Your task to perform on an android device: Turn on the flashlight Image 0: 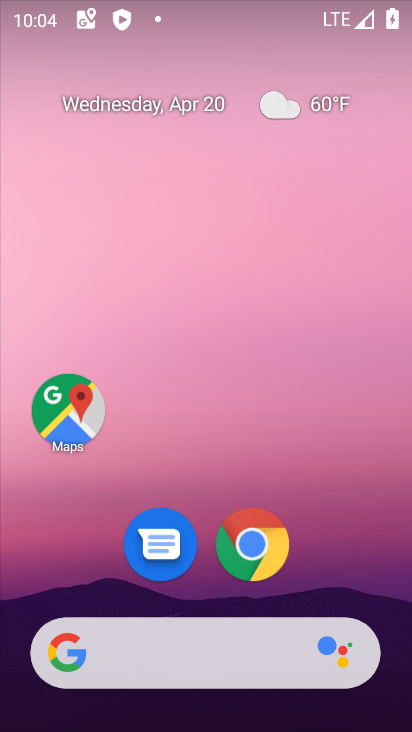
Step 0: drag from (270, 15) to (207, 545)
Your task to perform on an android device: Turn on the flashlight Image 1: 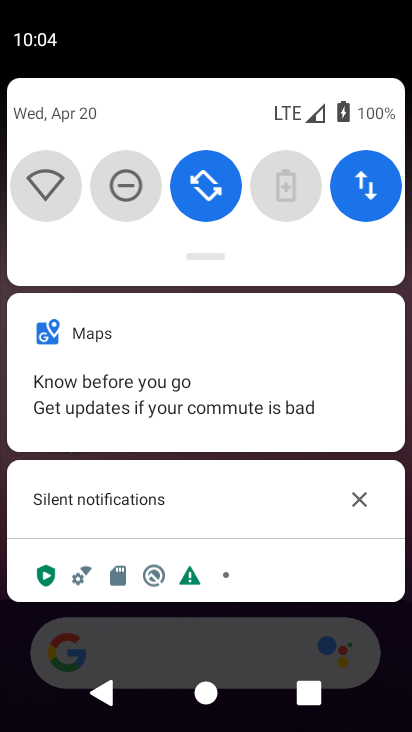
Step 1: drag from (248, 219) to (239, 634)
Your task to perform on an android device: Turn on the flashlight Image 2: 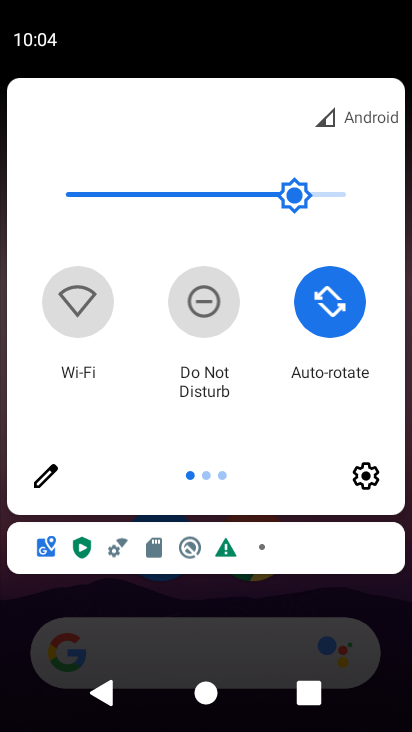
Step 2: drag from (377, 401) to (24, 407)
Your task to perform on an android device: Turn on the flashlight Image 3: 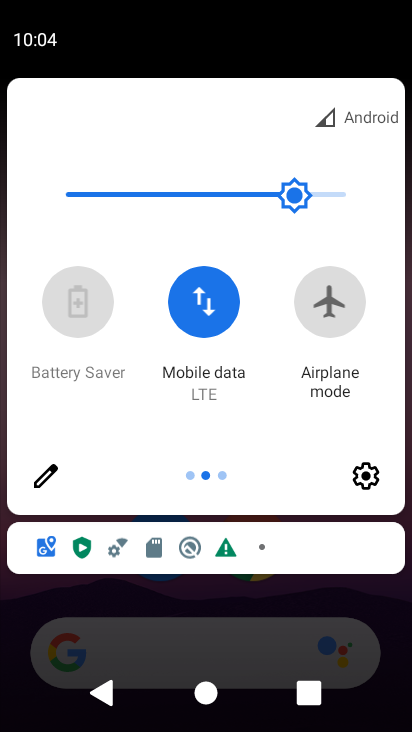
Step 3: drag from (388, 353) to (21, 283)
Your task to perform on an android device: Turn on the flashlight Image 4: 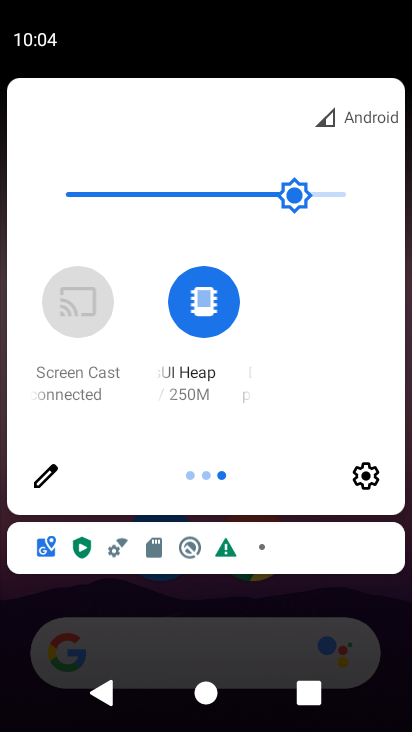
Step 4: click (46, 487)
Your task to perform on an android device: Turn on the flashlight Image 5: 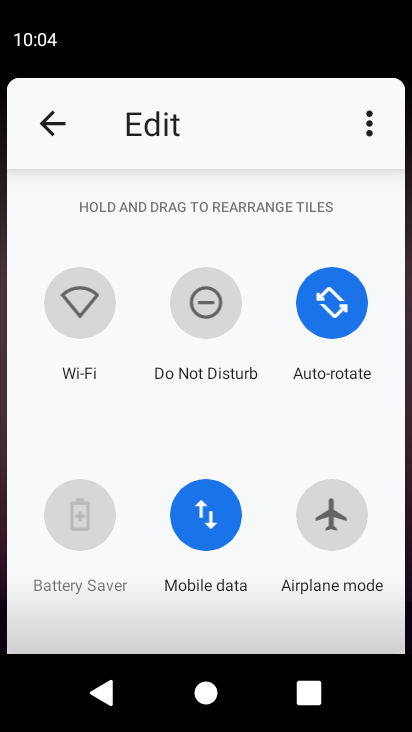
Step 5: task complete